Your task to perform on an android device: read, delete, or share a saved page in the chrome app Image 0: 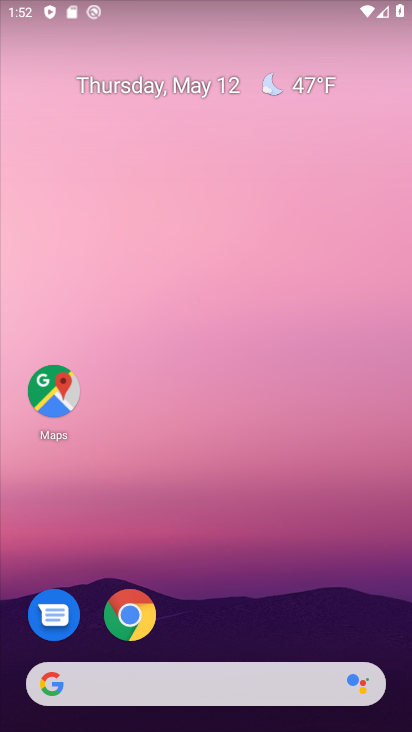
Step 0: click (133, 620)
Your task to perform on an android device: read, delete, or share a saved page in the chrome app Image 1: 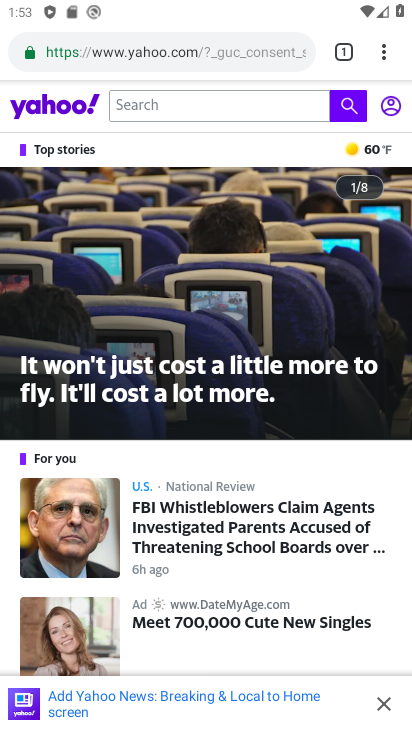
Step 1: click (377, 48)
Your task to perform on an android device: read, delete, or share a saved page in the chrome app Image 2: 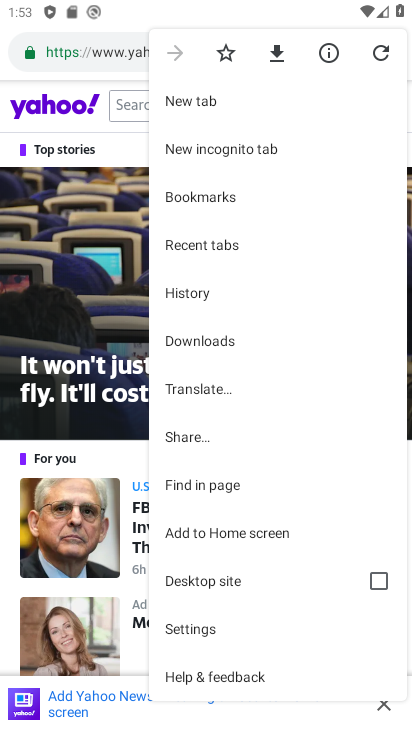
Step 2: click (222, 343)
Your task to perform on an android device: read, delete, or share a saved page in the chrome app Image 3: 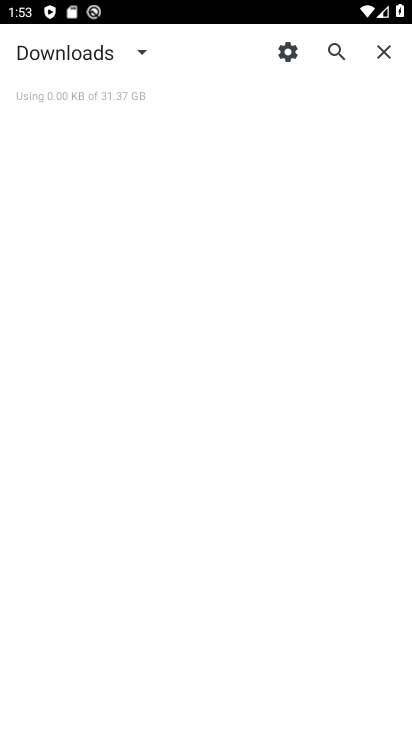
Step 3: task complete